Your task to perform on an android device: toggle show notifications on the lock screen Image 0: 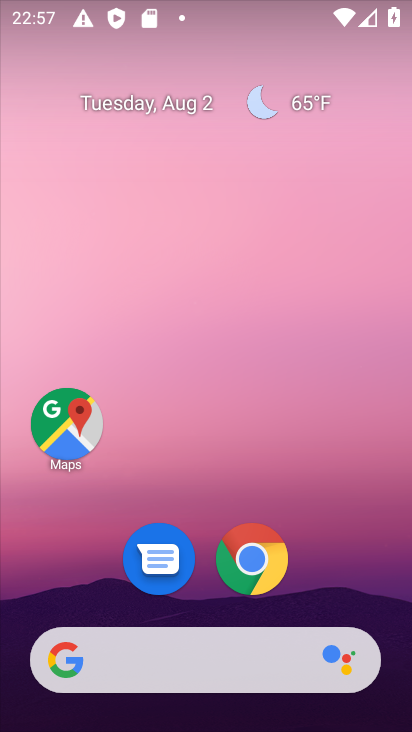
Step 0: click (79, 152)
Your task to perform on an android device: toggle show notifications on the lock screen Image 1: 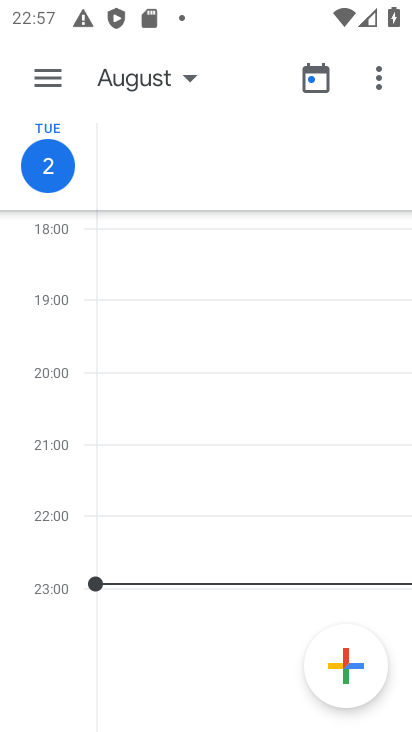
Step 1: press back button
Your task to perform on an android device: toggle show notifications on the lock screen Image 2: 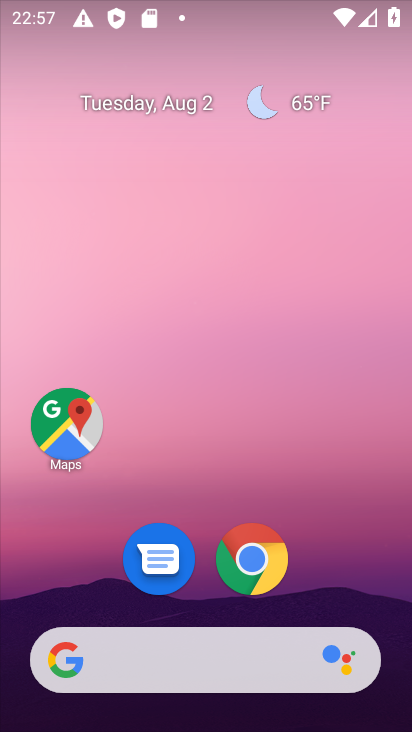
Step 2: drag from (230, 614) to (167, 53)
Your task to perform on an android device: toggle show notifications on the lock screen Image 3: 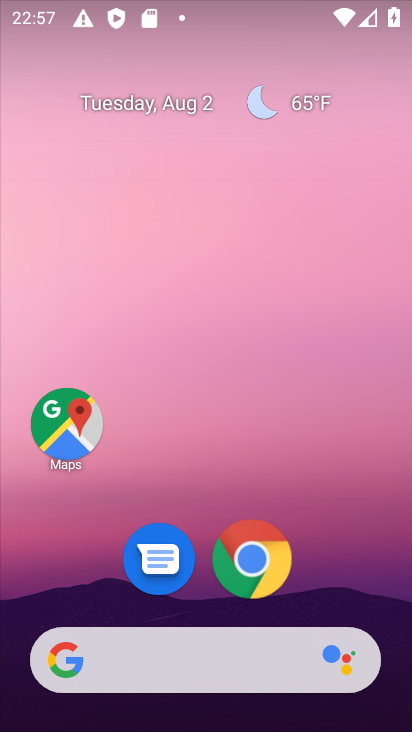
Step 3: drag from (227, 428) to (181, 15)
Your task to perform on an android device: toggle show notifications on the lock screen Image 4: 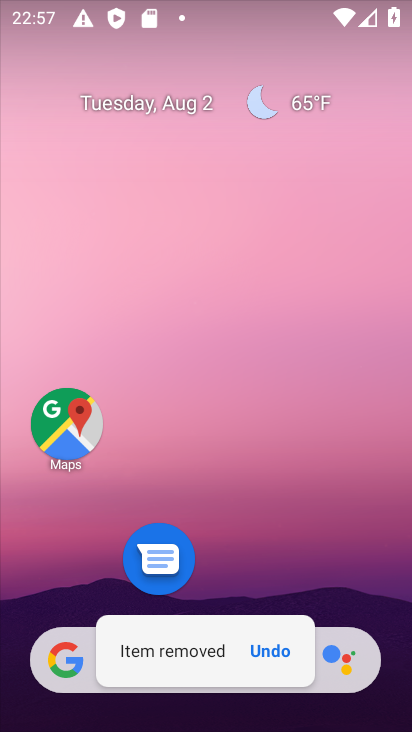
Step 4: drag from (238, 528) to (203, 105)
Your task to perform on an android device: toggle show notifications on the lock screen Image 5: 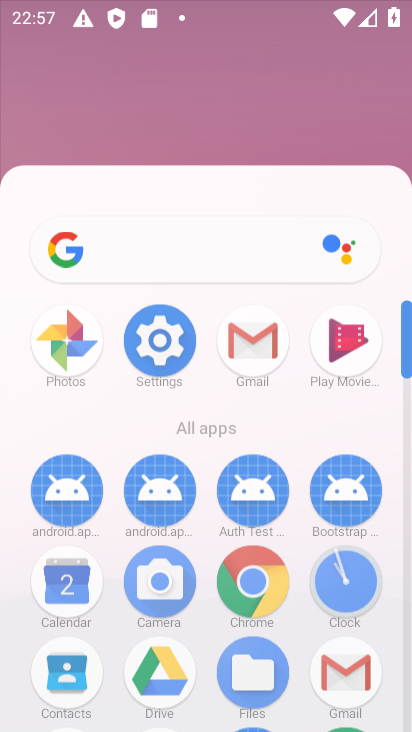
Step 5: drag from (268, 574) to (230, 48)
Your task to perform on an android device: toggle show notifications on the lock screen Image 6: 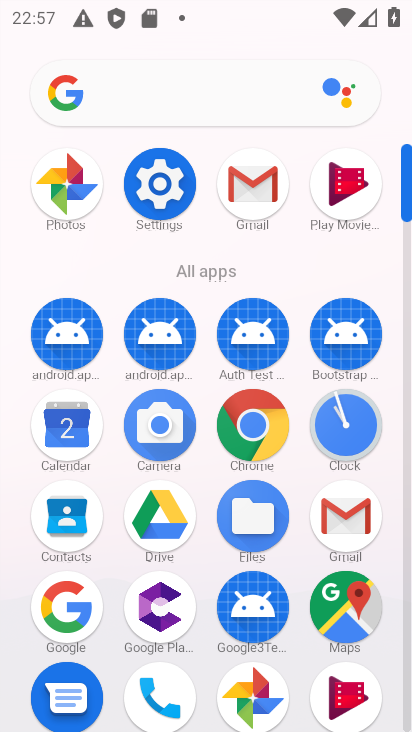
Step 6: click (149, 182)
Your task to perform on an android device: toggle show notifications on the lock screen Image 7: 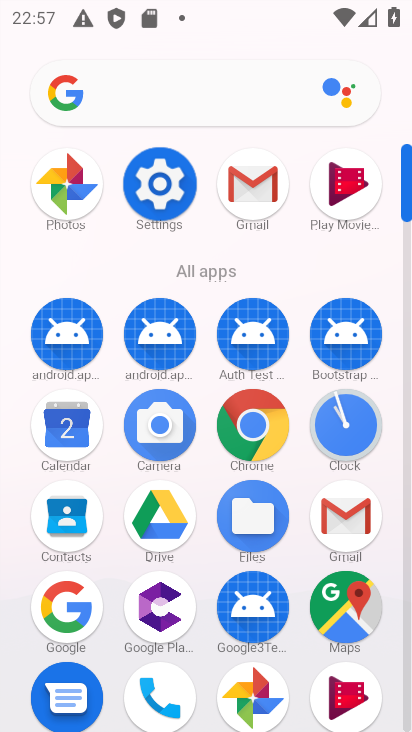
Step 7: click (149, 182)
Your task to perform on an android device: toggle show notifications on the lock screen Image 8: 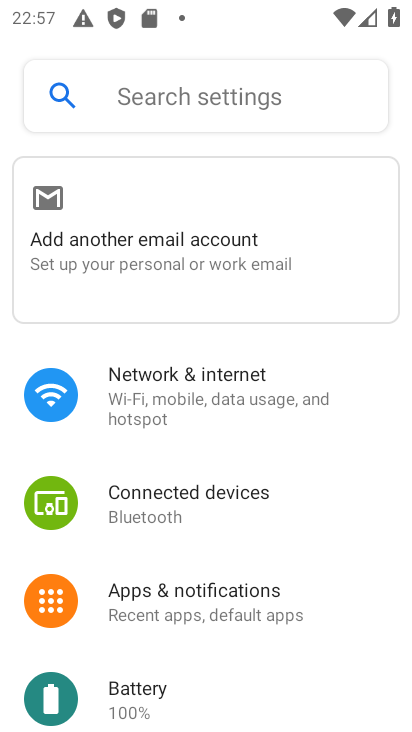
Step 8: click (178, 605)
Your task to perform on an android device: toggle show notifications on the lock screen Image 9: 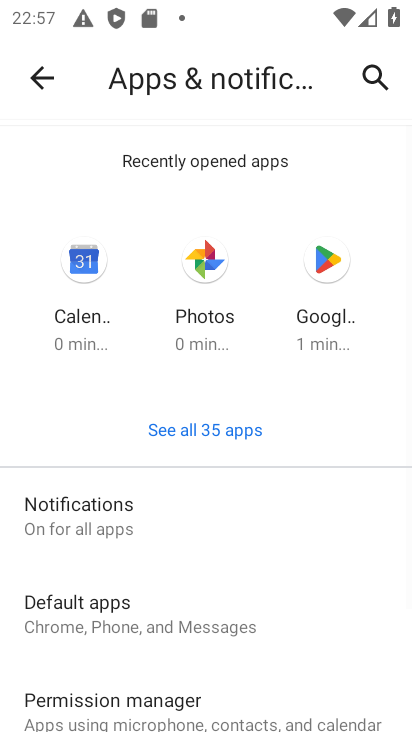
Step 9: click (59, 519)
Your task to perform on an android device: toggle show notifications on the lock screen Image 10: 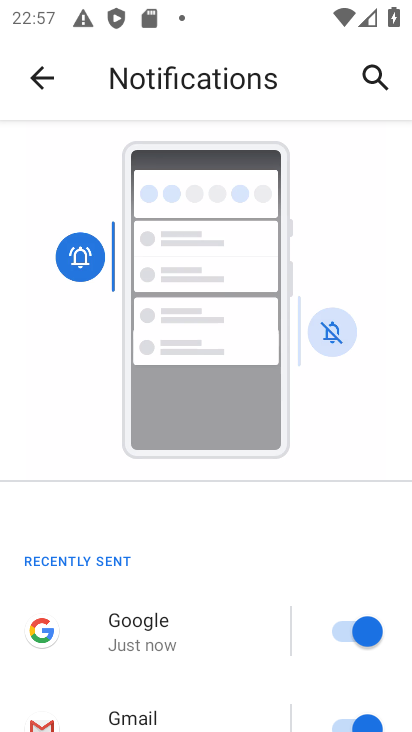
Step 10: drag from (170, 629) to (140, 324)
Your task to perform on an android device: toggle show notifications on the lock screen Image 11: 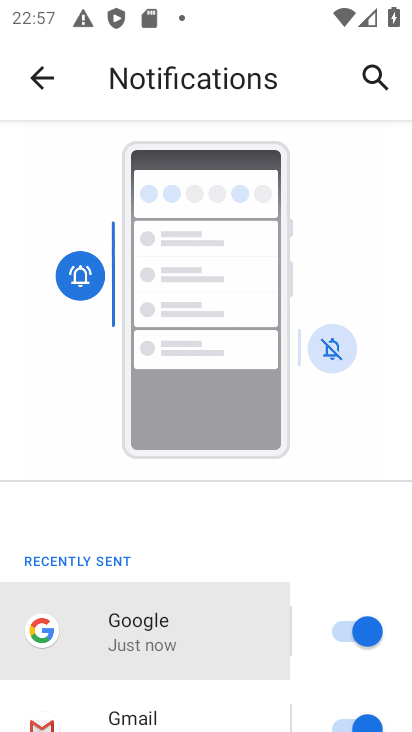
Step 11: drag from (160, 617) to (139, 368)
Your task to perform on an android device: toggle show notifications on the lock screen Image 12: 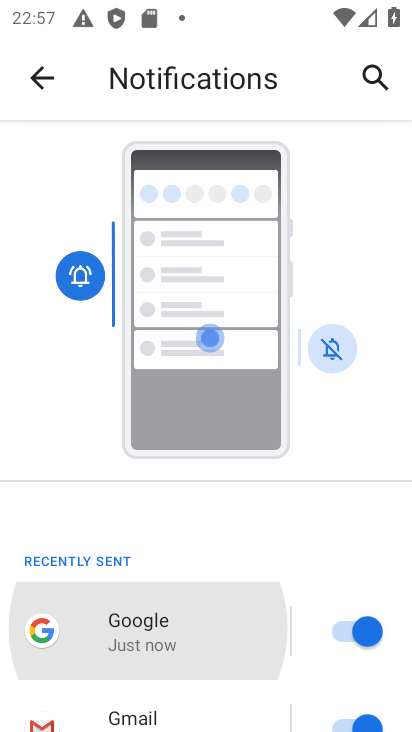
Step 12: drag from (201, 635) to (159, 348)
Your task to perform on an android device: toggle show notifications on the lock screen Image 13: 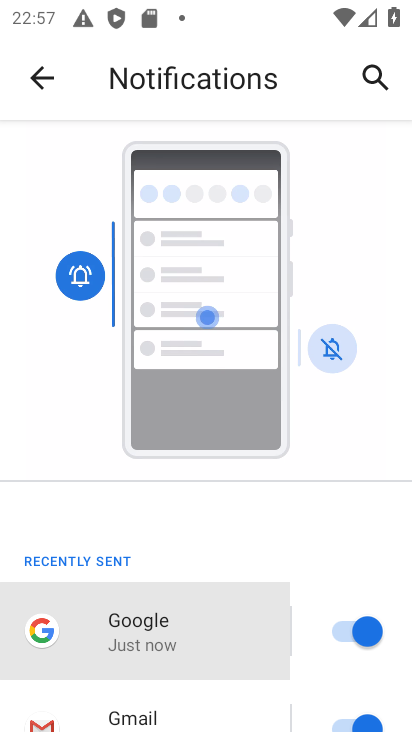
Step 13: drag from (181, 626) to (175, 348)
Your task to perform on an android device: toggle show notifications on the lock screen Image 14: 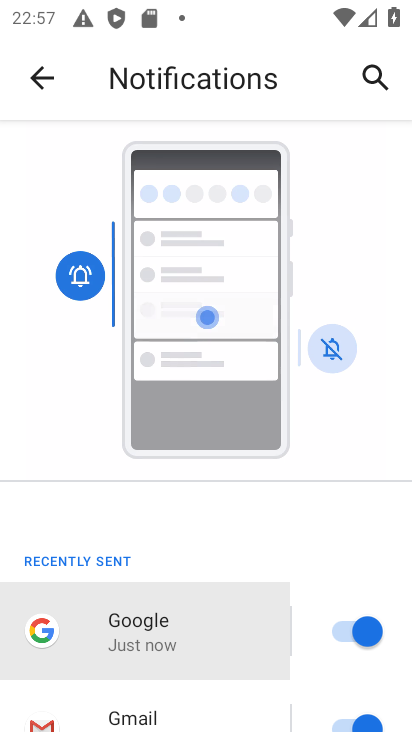
Step 14: drag from (209, 543) to (209, 291)
Your task to perform on an android device: toggle show notifications on the lock screen Image 15: 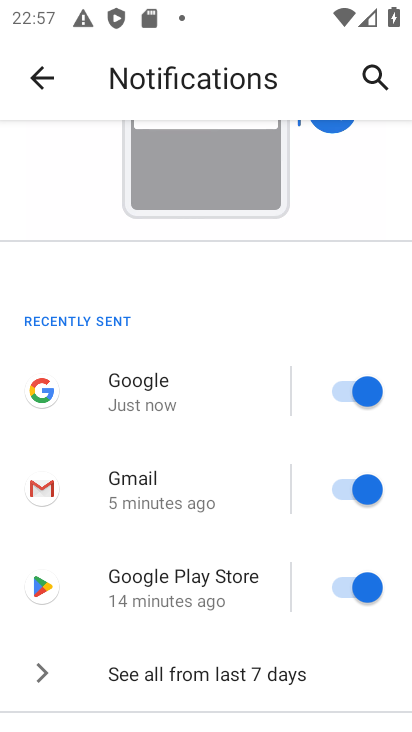
Step 15: drag from (182, 642) to (126, 269)
Your task to perform on an android device: toggle show notifications on the lock screen Image 16: 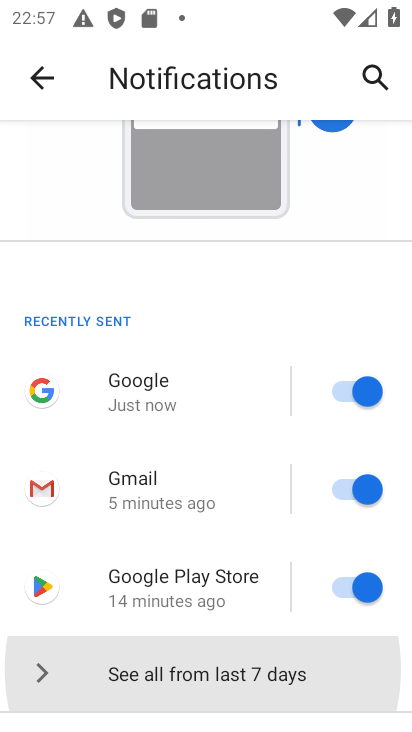
Step 16: drag from (134, 547) to (135, 296)
Your task to perform on an android device: toggle show notifications on the lock screen Image 17: 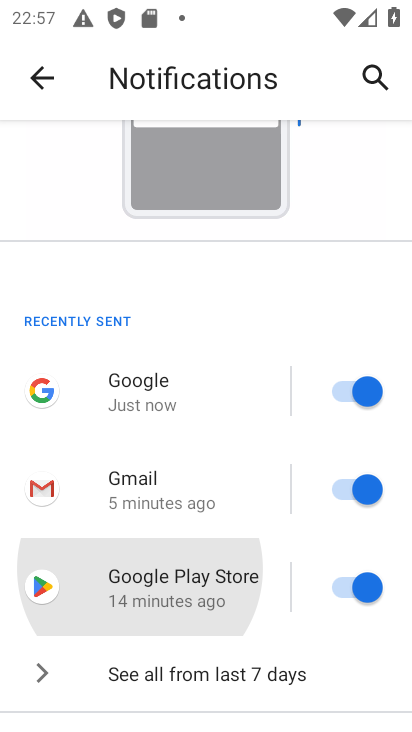
Step 17: drag from (173, 637) to (146, 276)
Your task to perform on an android device: toggle show notifications on the lock screen Image 18: 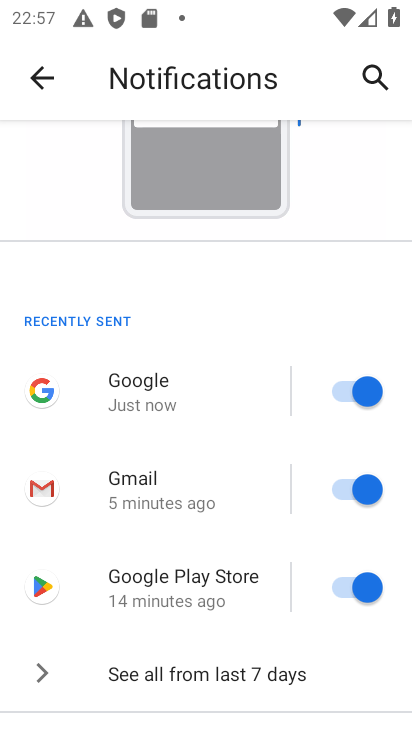
Step 18: drag from (199, 446) to (205, 136)
Your task to perform on an android device: toggle show notifications on the lock screen Image 19: 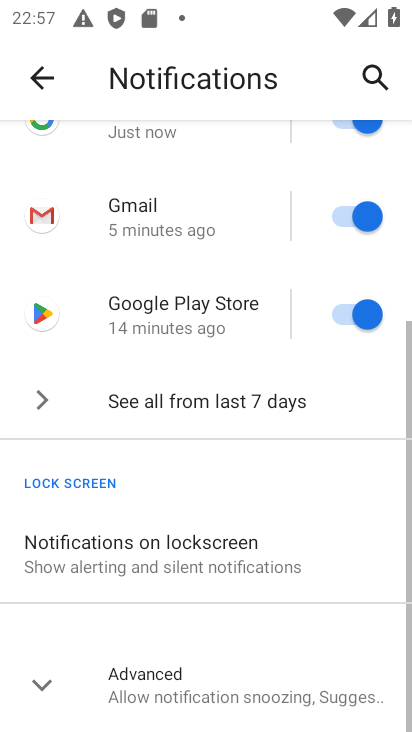
Step 19: drag from (222, 467) to (187, 197)
Your task to perform on an android device: toggle show notifications on the lock screen Image 20: 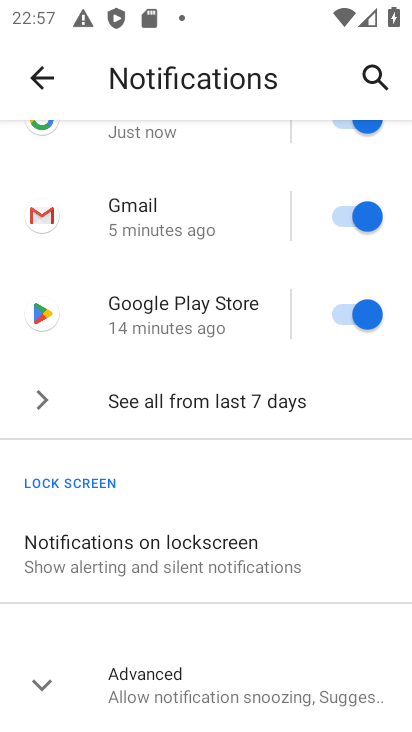
Step 20: click (92, 544)
Your task to perform on an android device: toggle show notifications on the lock screen Image 21: 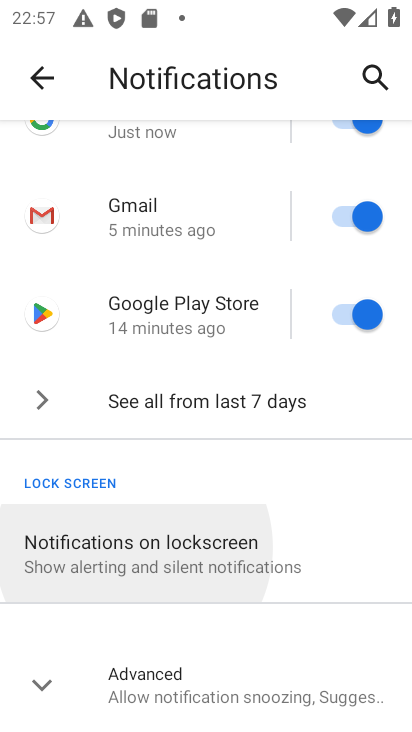
Step 21: click (92, 544)
Your task to perform on an android device: toggle show notifications on the lock screen Image 22: 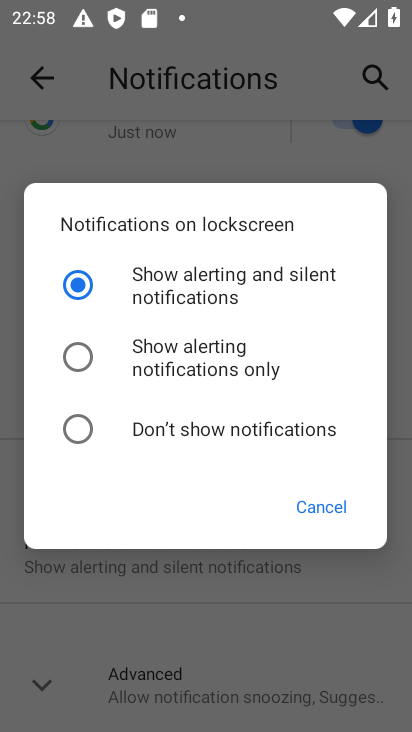
Step 22: task complete